Your task to perform on an android device: turn off javascript in the chrome app Image 0: 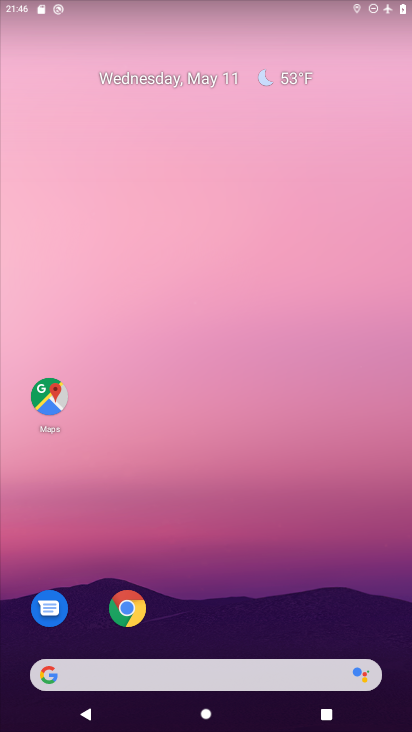
Step 0: click (121, 613)
Your task to perform on an android device: turn off javascript in the chrome app Image 1: 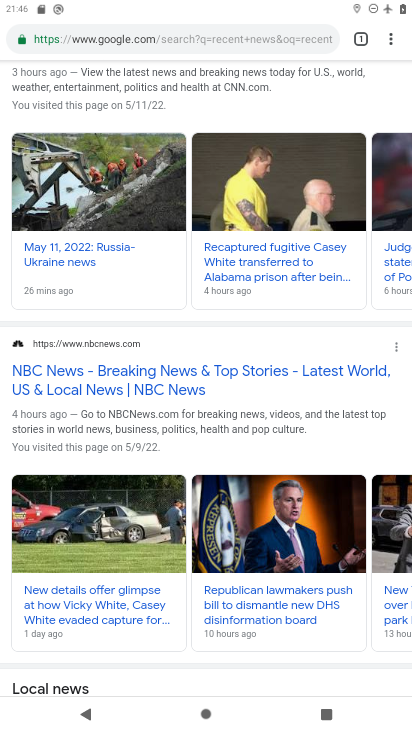
Step 1: drag from (391, 40) to (276, 440)
Your task to perform on an android device: turn off javascript in the chrome app Image 2: 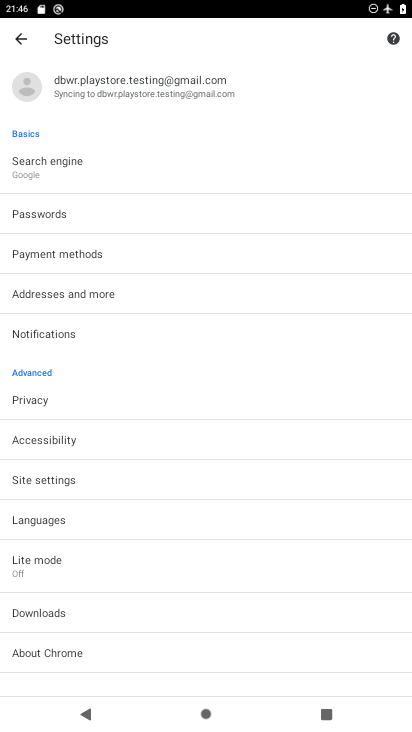
Step 2: click (58, 492)
Your task to perform on an android device: turn off javascript in the chrome app Image 3: 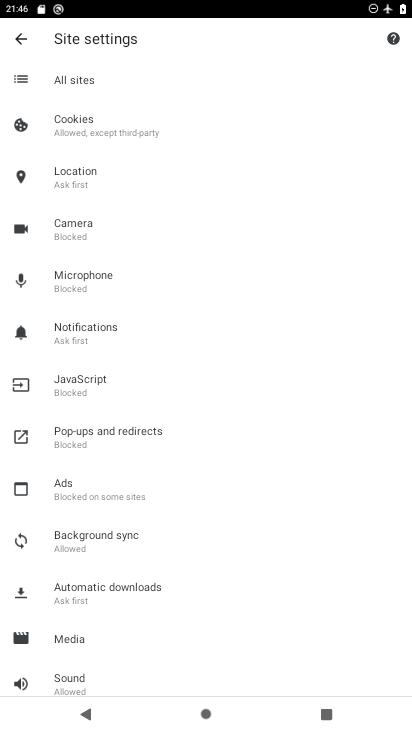
Step 3: click (133, 377)
Your task to perform on an android device: turn off javascript in the chrome app Image 4: 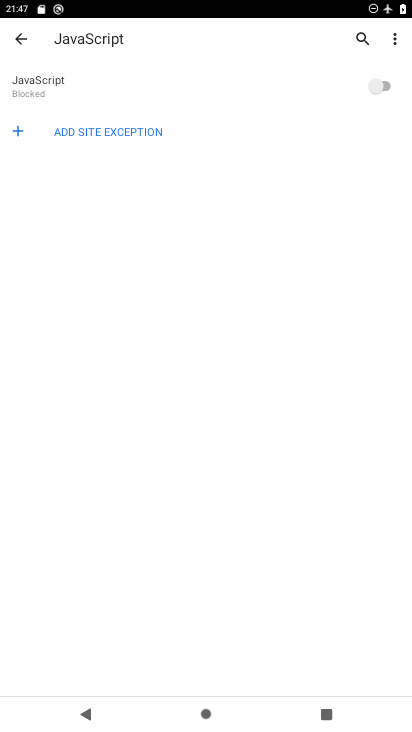
Step 4: task complete